Your task to perform on an android device: toggle translation in the chrome app Image 0: 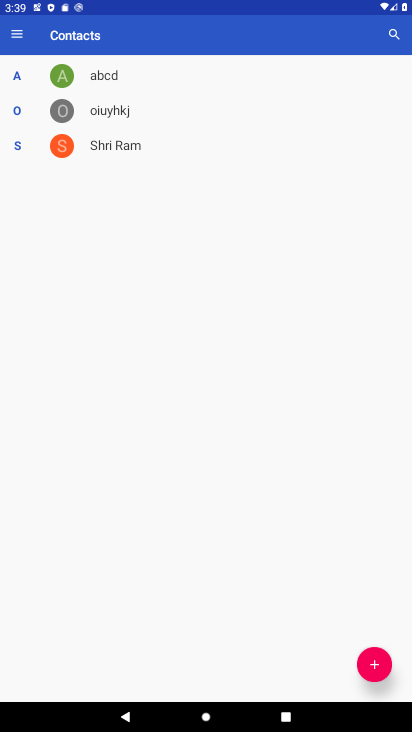
Step 0: press home button
Your task to perform on an android device: toggle translation in the chrome app Image 1: 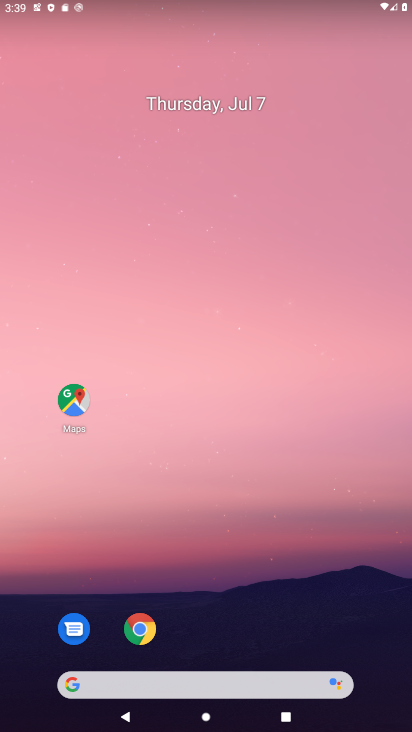
Step 1: drag from (199, 590) to (208, 180)
Your task to perform on an android device: toggle translation in the chrome app Image 2: 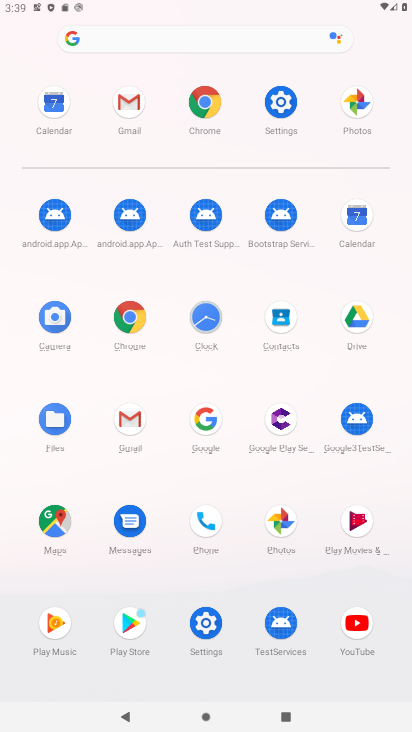
Step 2: click (210, 94)
Your task to perform on an android device: toggle translation in the chrome app Image 3: 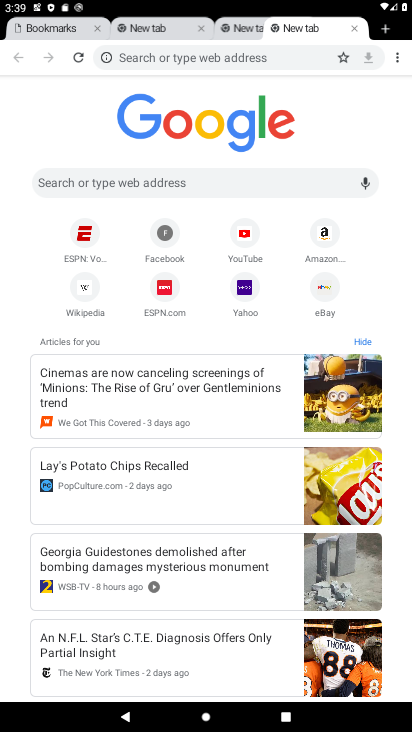
Step 3: click (401, 60)
Your task to perform on an android device: toggle translation in the chrome app Image 4: 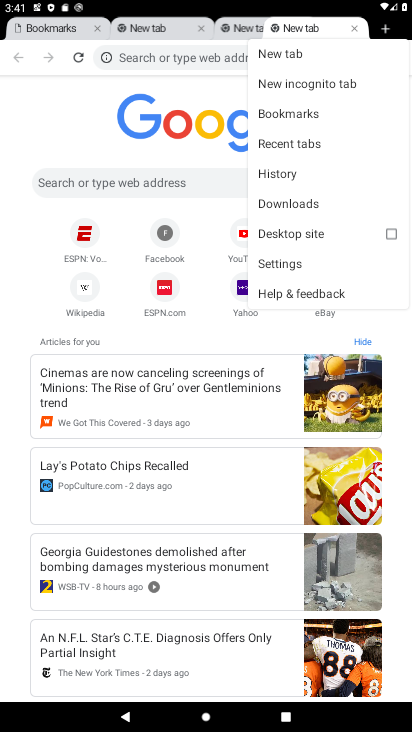
Step 4: click (302, 262)
Your task to perform on an android device: toggle translation in the chrome app Image 5: 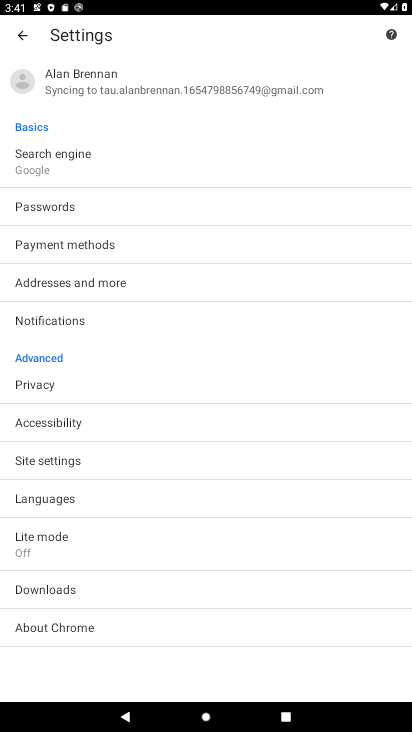
Step 5: click (96, 494)
Your task to perform on an android device: toggle translation in the chrome app Image 6: 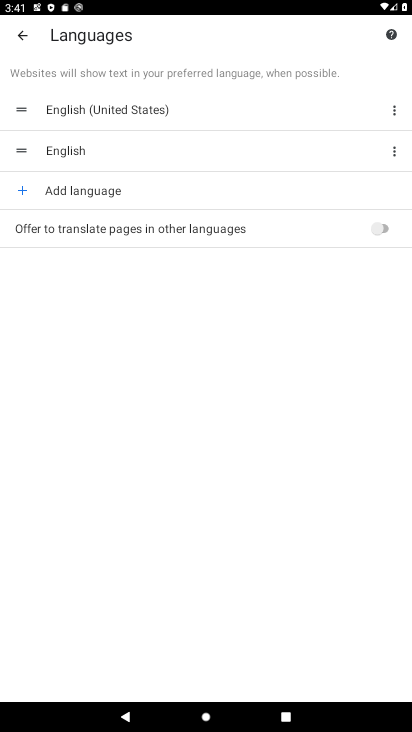
Step 6: click (392, 228)
Your task to perform on an android device: toggle translation in the chrome app Image 7: 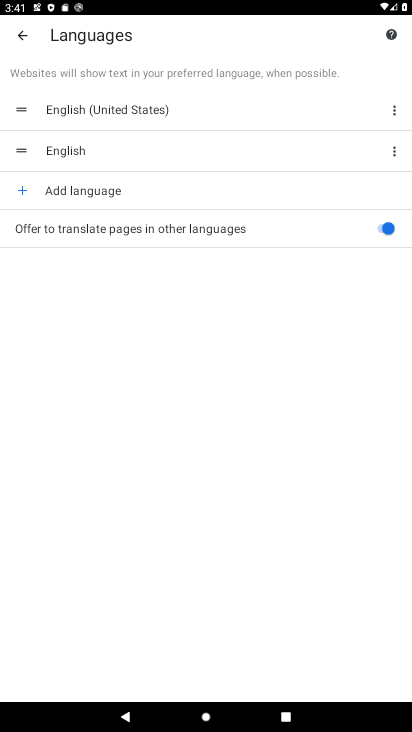
Step 7: task complete